Your task to perform on an android device: Open the calendar and show me this week's events? Image 0: 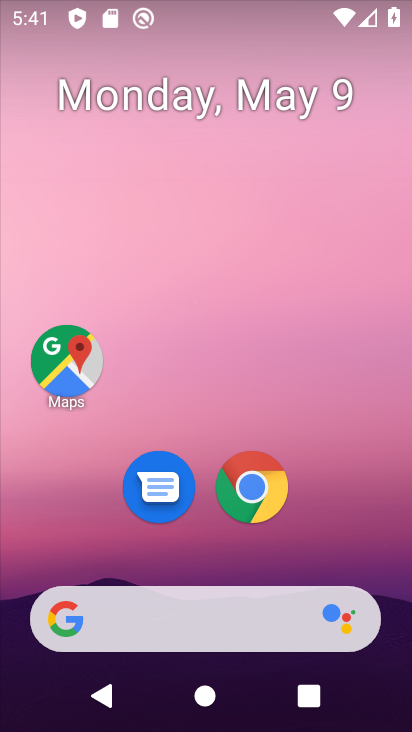
Step 0: drag from (309, 567) to (214, 128)
Your task to perform on an android device: Open the calendar and show me this week's events? Image 1: 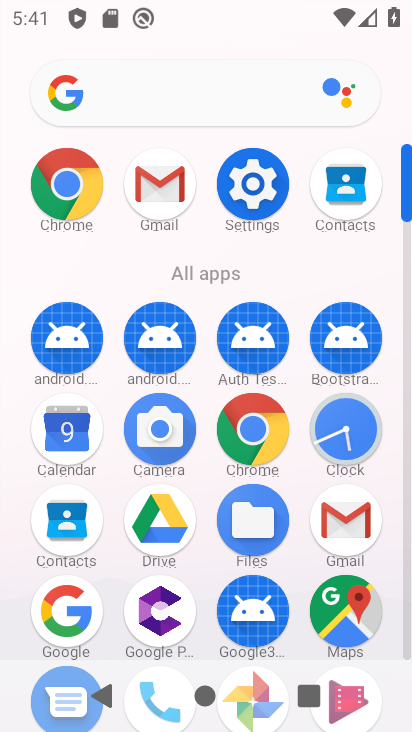
Step 1: drag from (204, 555) to (175, 306)
Your task to perform on an android device: Open the calendar and show me this week's events? Image 2: 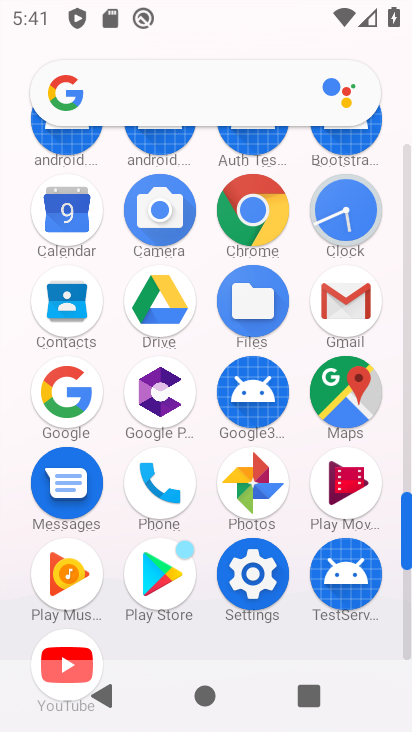
Step 2: click (74, 235)
Your task to perform on an android device: Open the calendar and show me this week's events? Image 3: 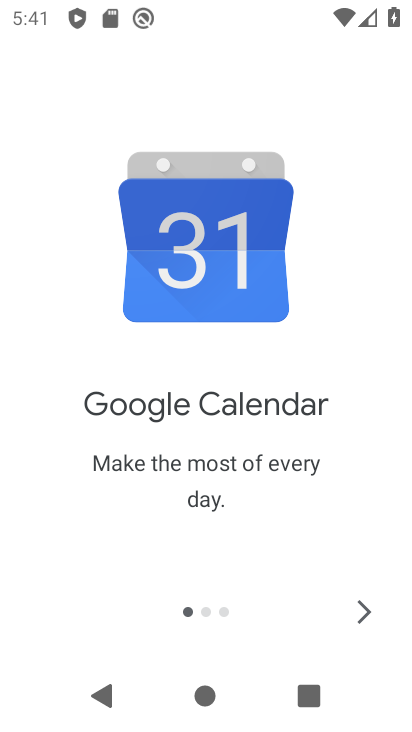
Step 3: click (366, 627)
Your task to perform on an android device: Open the calendar and show me this week's events? Image 4: 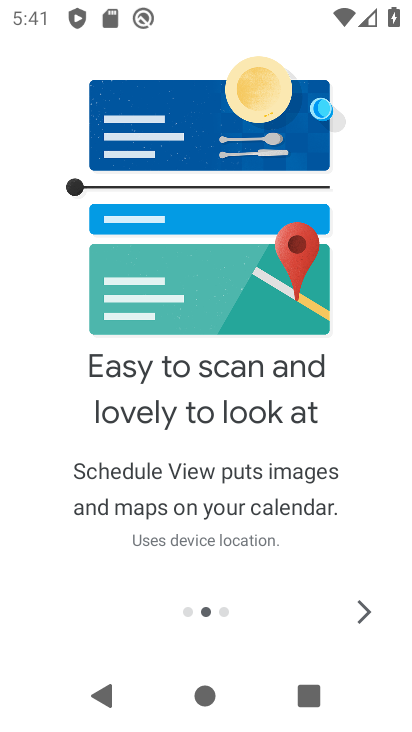
Step 4: click (366, 627)
Your task to perform on an android device: Open the calendar and show me this week's events? Image 5: 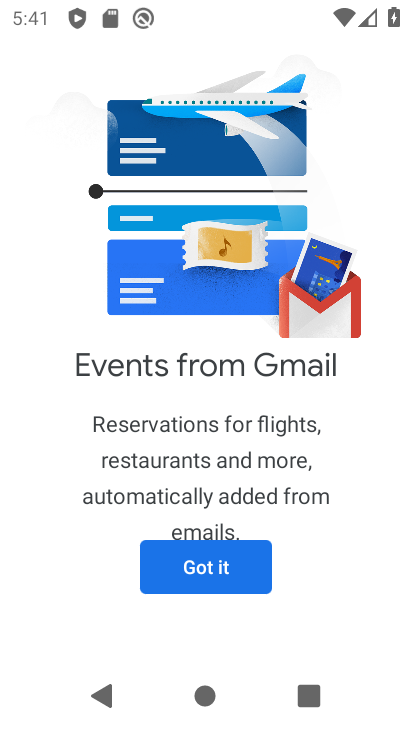
Step 5: click (275, 582)
Your task to perform on an android device: Open the calendar and show me this week's events? Image 6: 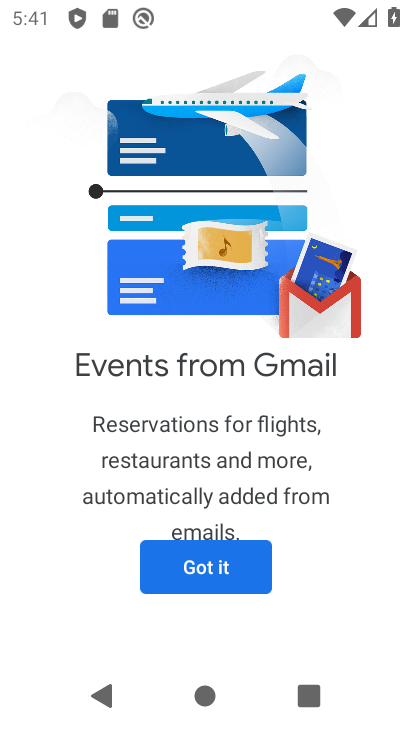
Step 6: click (267, 580)
Your task to perform on an android device: Open the calendar and show me this week's events? Image 7: 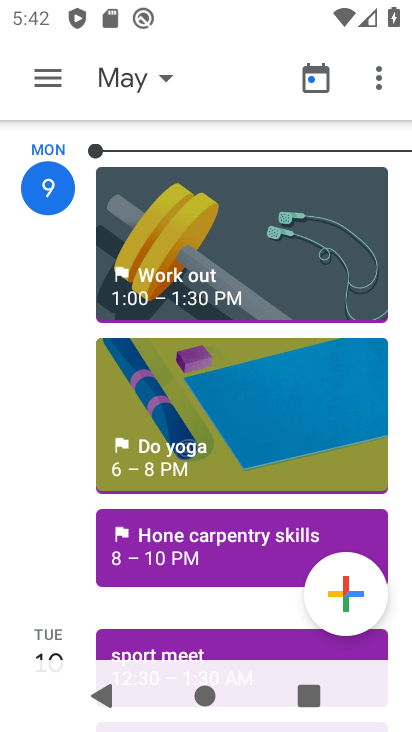
Step 7: click (52, 79)
Your task to perform on an android device: Open the calendar and show me this week's events? Image 8: 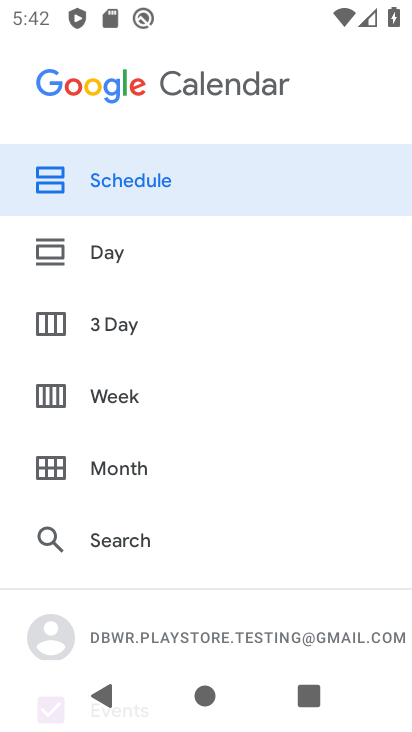
Step 8: drag from (158, 578) to (192, 366)
Your task to perform on an android device: Open the calendar and show me this week's events? Image 9: 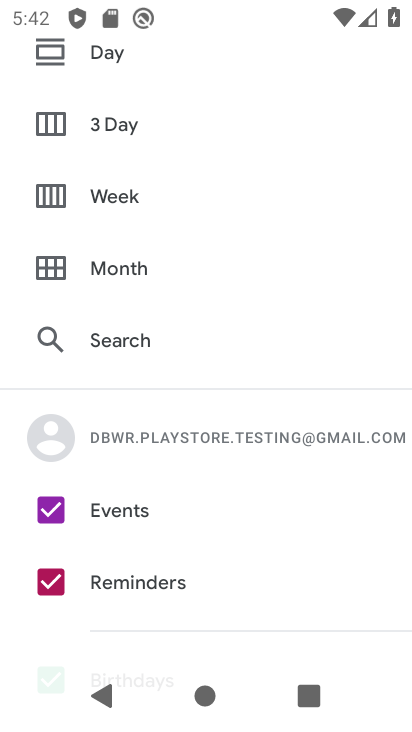
Step 9: click (98, 209)
Your task to perform on an android device: Open the calendar and show me this week's events? Image 10: 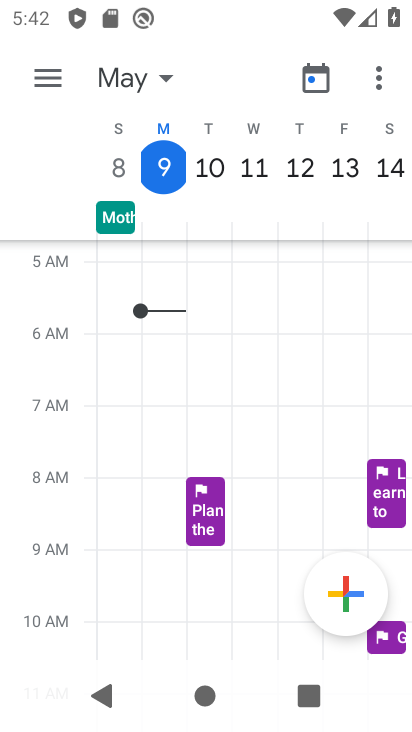
Step 10: click (128, 82)
Your task to perform on an android device: Open the calendar and show me this week's events? Image 11: 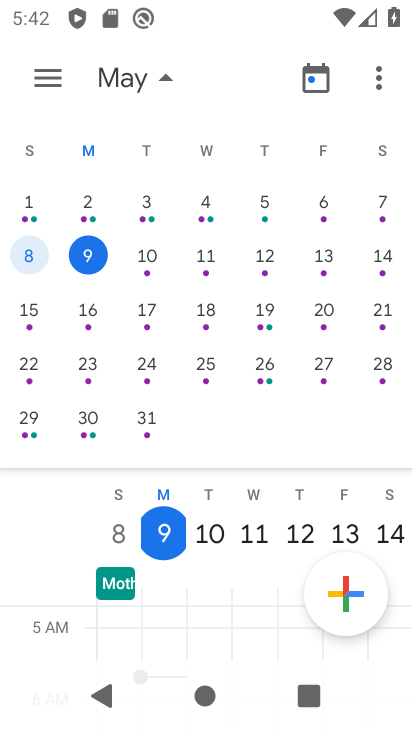
Step 11: drag from (200, 575) to (236, 244)
Your task to perform on an android device: Open the calendar and show me this week's events? Image 12: 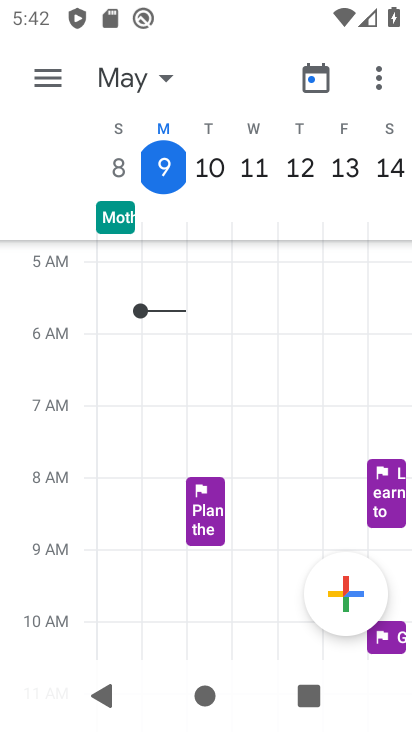
Step 12: click (126, 177)
Your task to perform on an android device: Open the calendar and show me this week's events? Image 13: 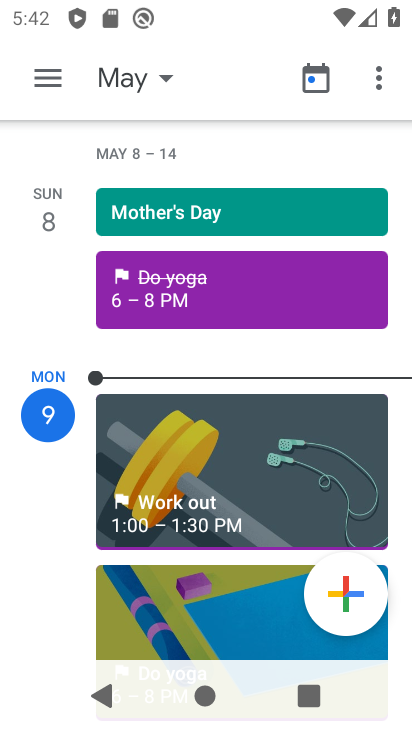
Step 13: click (52, 103)
Your task to perform on an android device: Open the calendar and show me this week's events? Image 14: 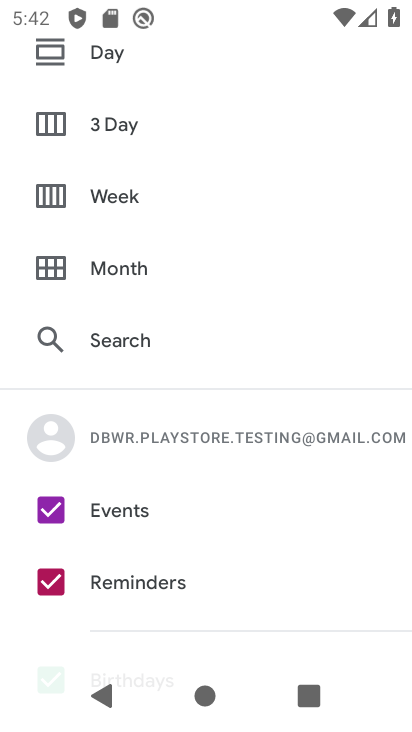
Step 14: click (94, 201)
Your task to perform on an android device: Open the calendar and show me this week's events? Image 15: 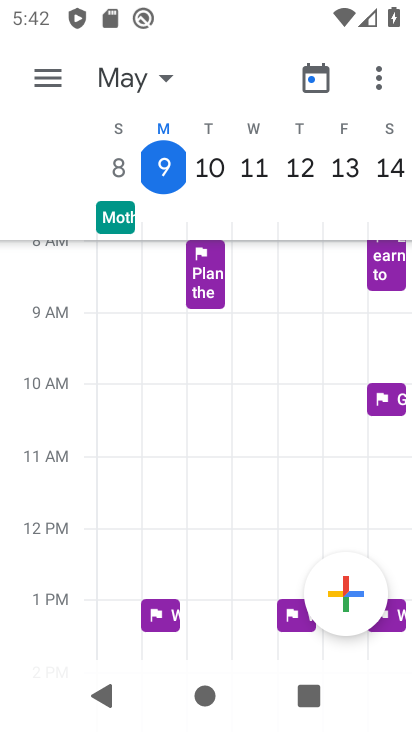
Step 15: task complete